Your task to perform on an android device: toggle show notifications on the lock screen Image 0: 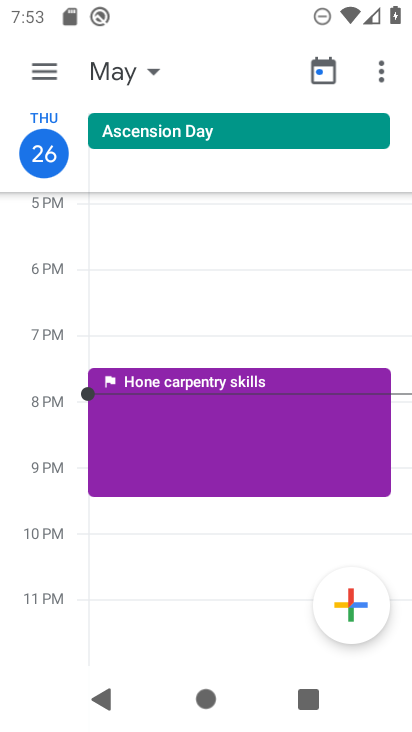
Step 0: press home button
Your task to perform on an android device: toggle show notifications on the lock screen Image 1: 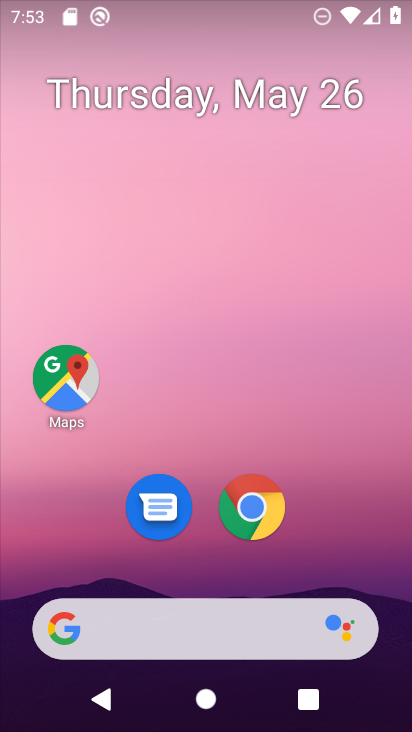
Step 1: drag from (160, 601) to (259, 90)
Your task to perform on an android device: toggle show notifications on the lock screen Image 2: 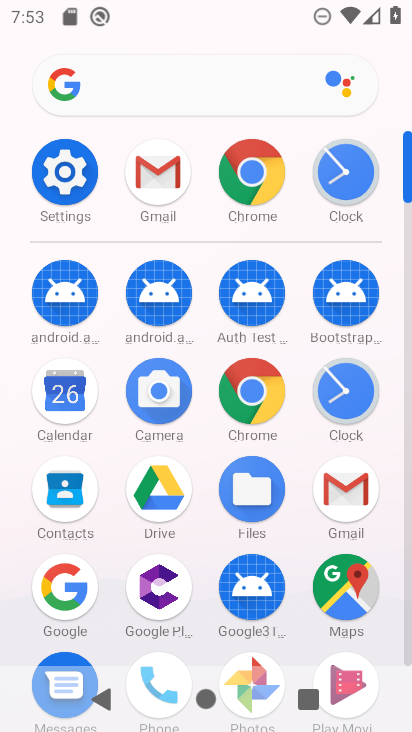
Step 2: click (65, 185)
Your task to perform on an android device: toggle show notifications on the lock screen Image 3: 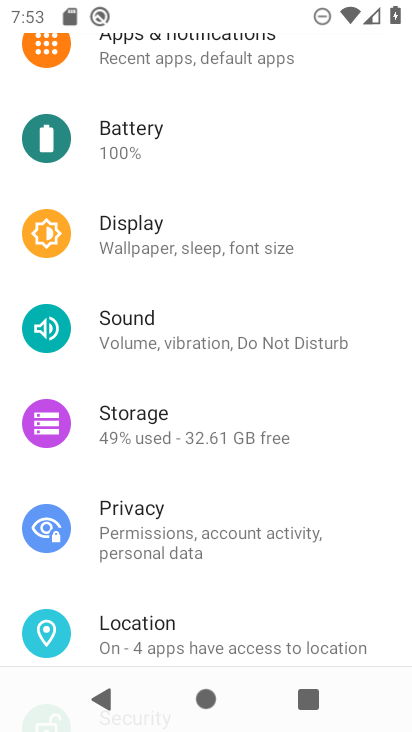
Step 3: drag from (165, 162) to (113, 579)
Your task to perform on an android device: toggle show notifications on the lock screen Image 4: 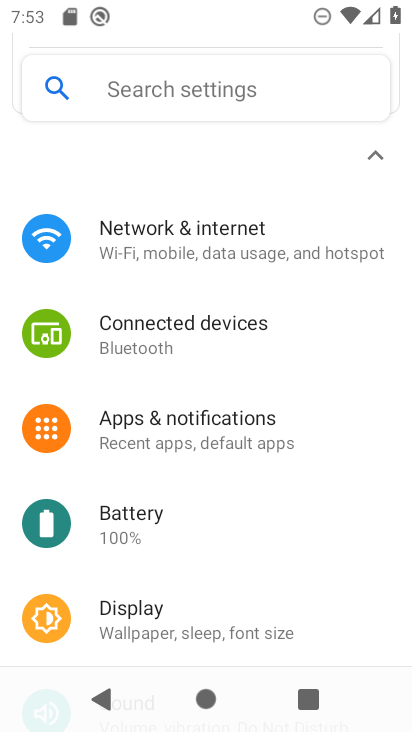
Step 4: click (153, 448)
Your task to perform on an android device: toggle show notifications on the lock screen Image 5: 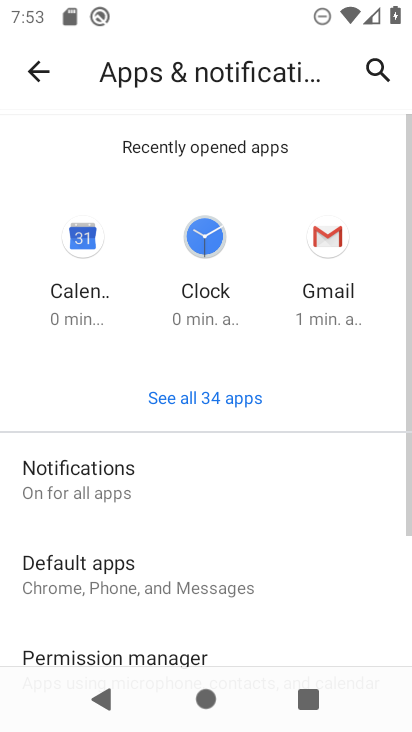
Step 5: click (108, 498)
Your task to perform on an android device: toggle show notifications on the lock screen Image 6: 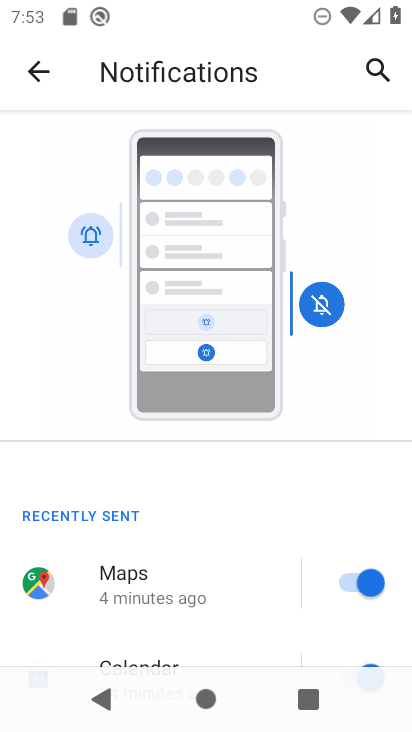
Step 6: drag from (183, 606) to (238, 389)
Your task to perform on an android device: toggle show notifications on the lock screen Image 7: 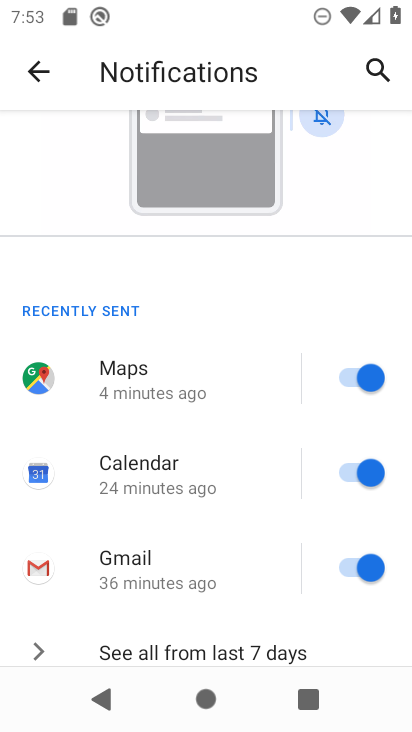
Step 7: drag from (211, 591) to (300, 296)
Your task to perform on an android device: toggle show notifications on the lock screen Image 8: 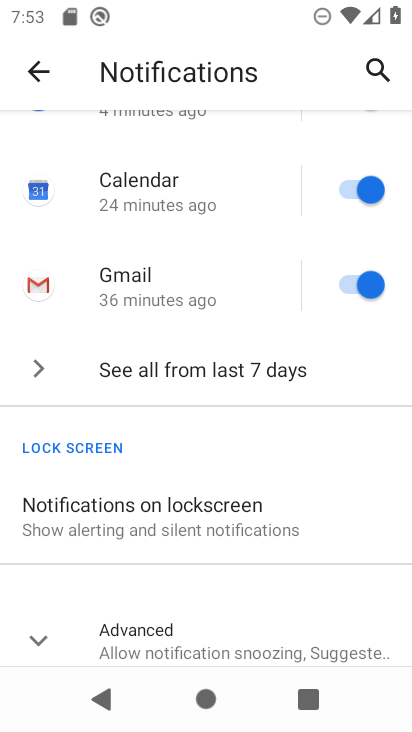
Step 8: click (83, 512)
Your task to perform on an android device: toggle show notifications on the lock screen Image 9: 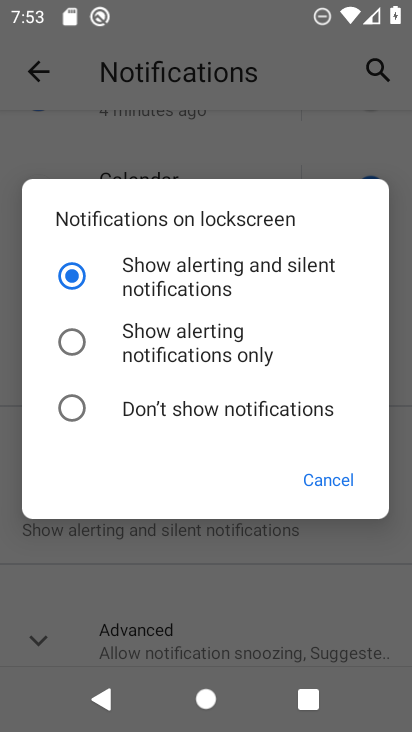
Step 9: click (66, 396)
Your task to perform on an android device: toggle show notifications on the lock screen Image 10: 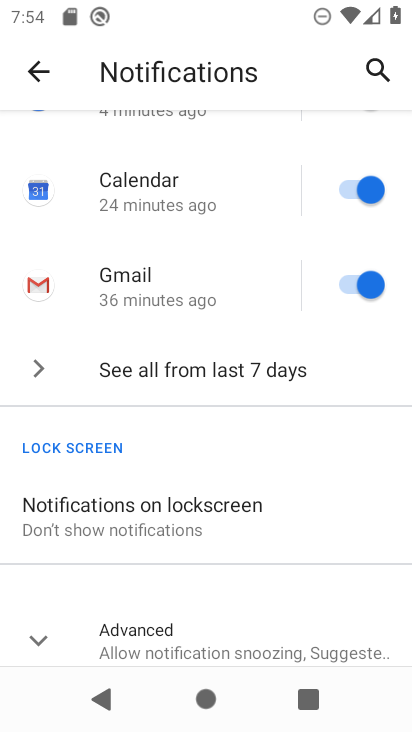
Step 10: task complete